Your task to perform on an android device: manage bookmarks in the chrome app Image 0: 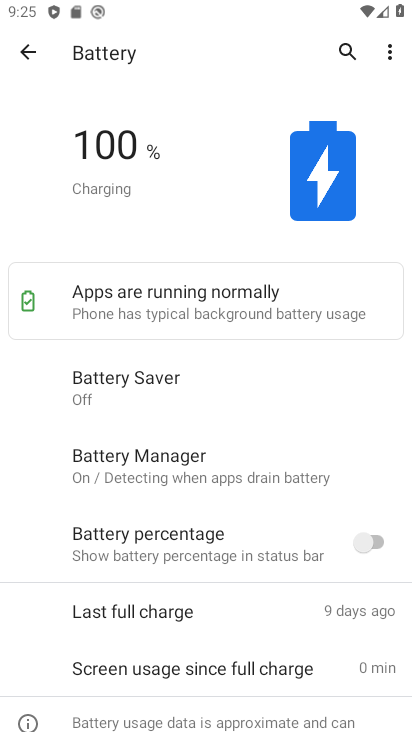
Step 0: press home button
Your task to perform on an android device: manage bookmarks in the chrome app Image 1: 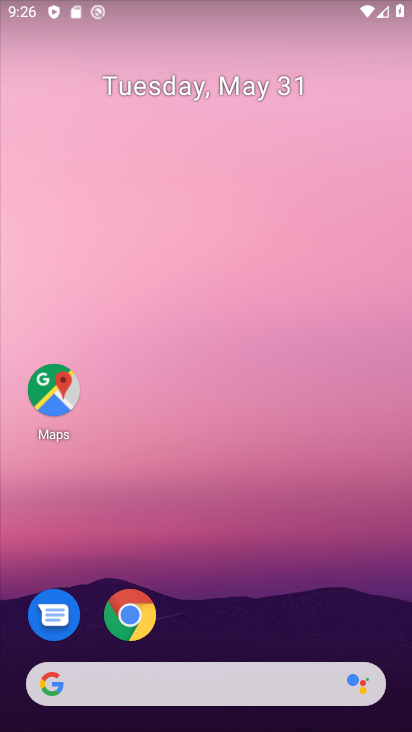
Step 1: click (139, 597)
Your task to perform on an android device: manage bookmarks in the chrome app Image 2: 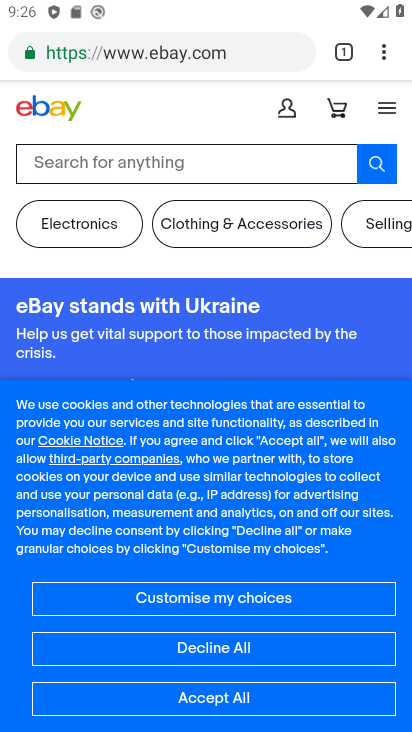
Step 2: click (376, 52)
Your task to perform on an android device: manage bookmarks in the chrome app Image 3: 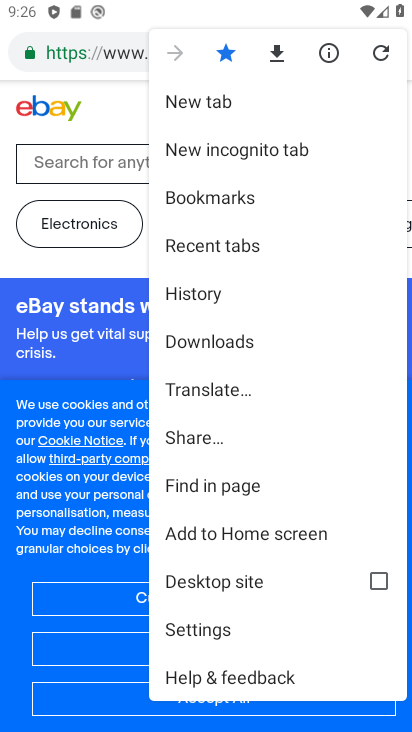
Step 3: click (214, 197)
Your task to perform on an android device: manage bookmarks in the chrome app Image 4: 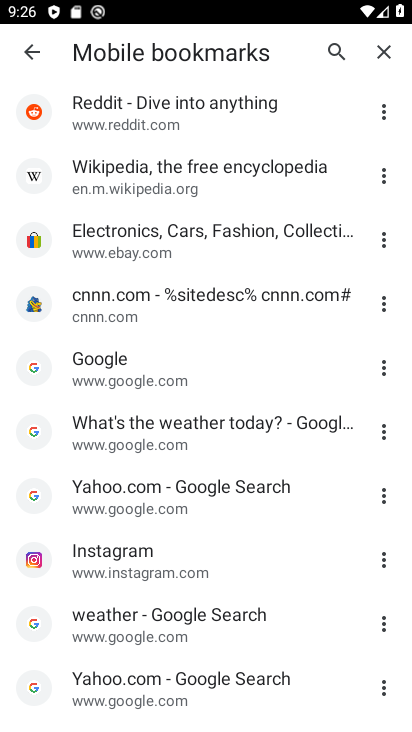
Step 4: click (383, 112)
Your task to perform on an android device: manage bookmarks in the chrome app Image 5: 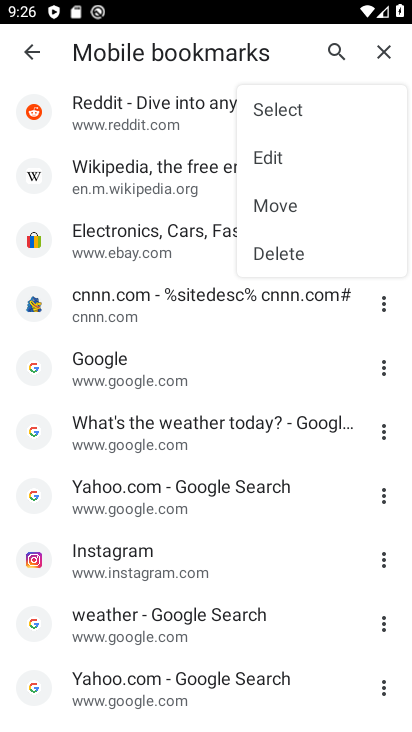
Step 5: click (309, 245)
Your task to perform on an android device: manage bookmarks in the chrome app Image 6: 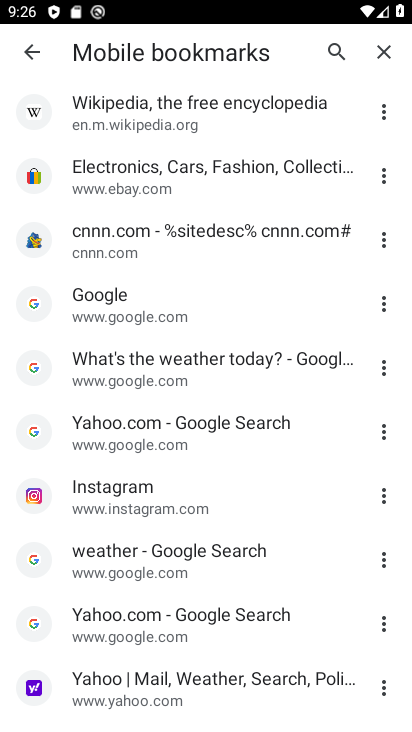
Step 6: task complete